Your task to perform on an android device: Open settings Image 0: 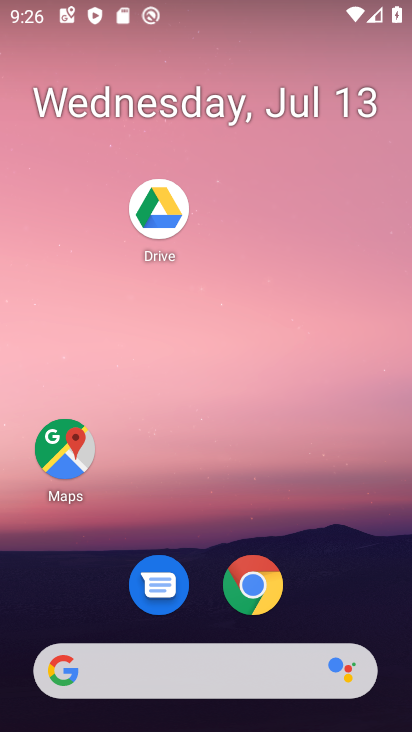
Step 0: drag from (182, 668) to (267, 38)
Your task to perform on an android device: Open settings Image 1: 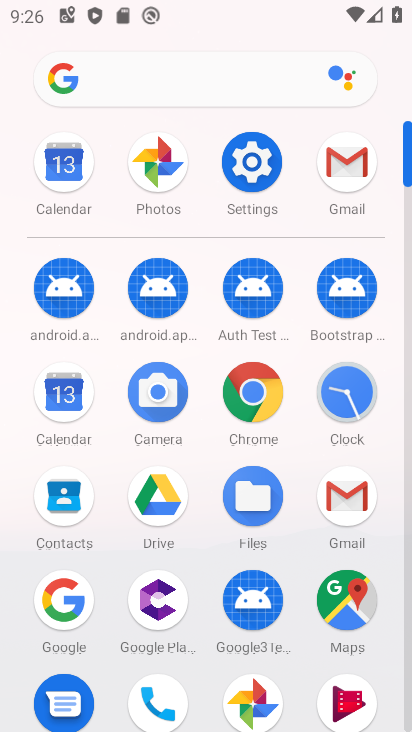
Step 1: click (260, 160)
Your task to perform on an android device: Open settings Image 2: 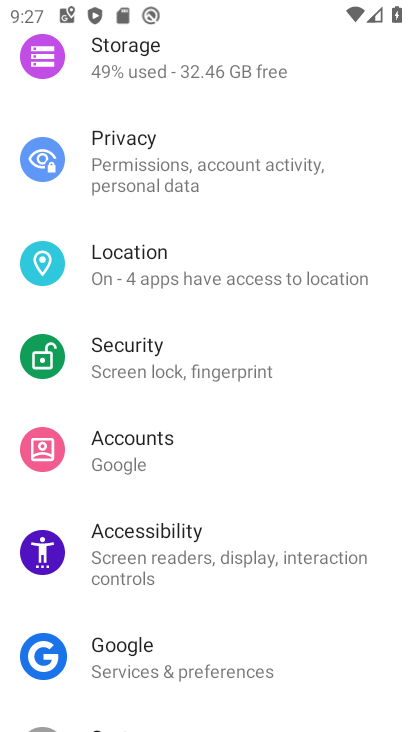
Step 2: task complete